Your task to perform on an android device: Open location settings Image 0: 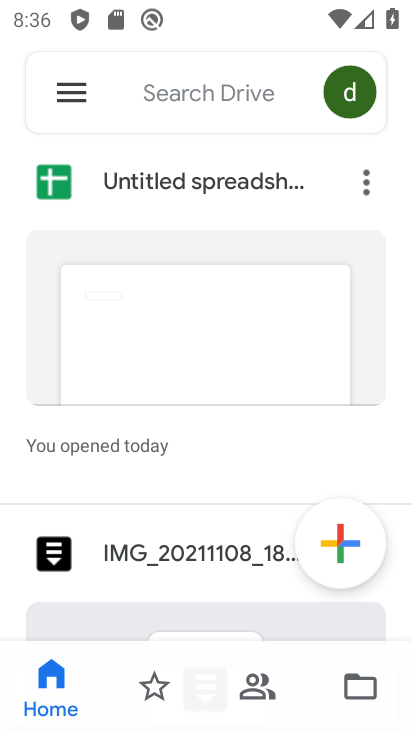
Step 0: press home button
Your task to perform on an android device: Open location settings Image 1: 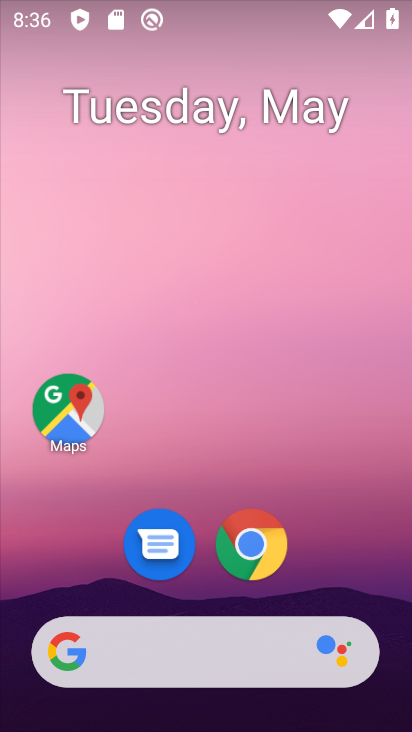
Step 1: drag from (370, 558) to (341, 246)
Your task to perform on an android device: Open location settings Image 2: 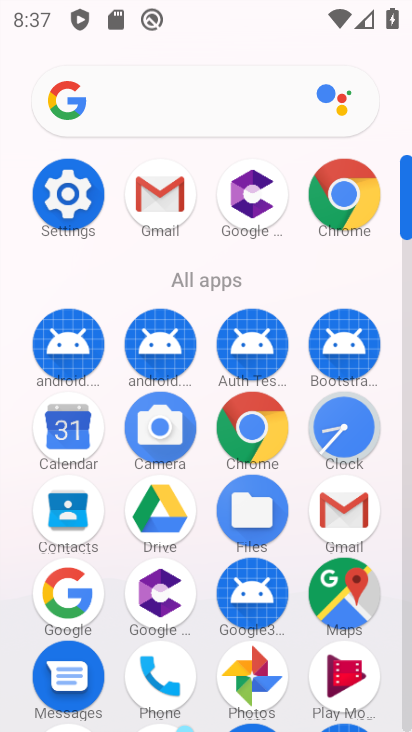
Step 2: click (59, 213)
Your task to perform on an android device: Open location settings Image 3: 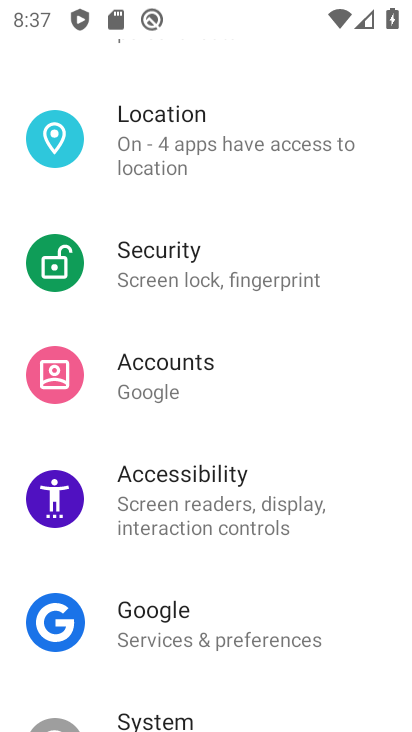
Step 3: drag from (205, 617) to (213, 328)
Your task to perform on an android device: Open location settings Image 4: 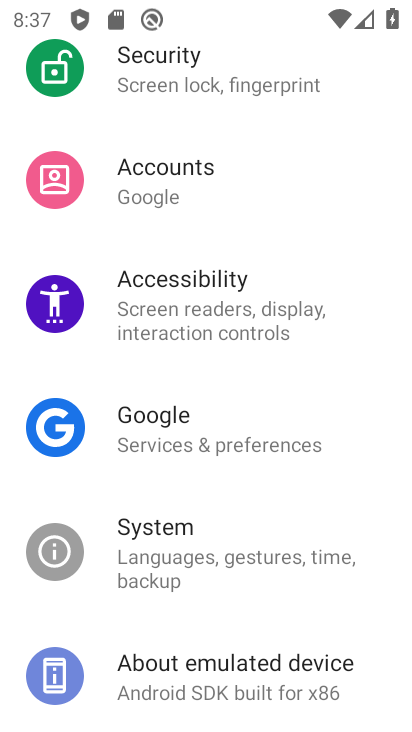
Step 4: drag from (211, 272) to (198, 562)
Your task to perform on an android device: Open location settings Image 5: 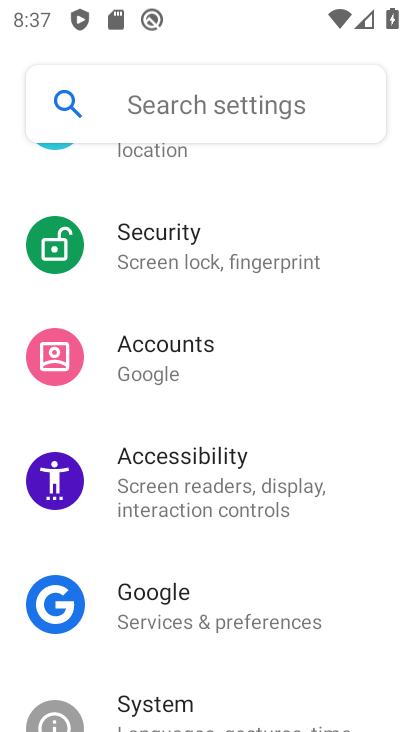
Step 5: drag from (206, 261) to (207, 578)
Your task to perform on an android device: Open location settings Image 6: 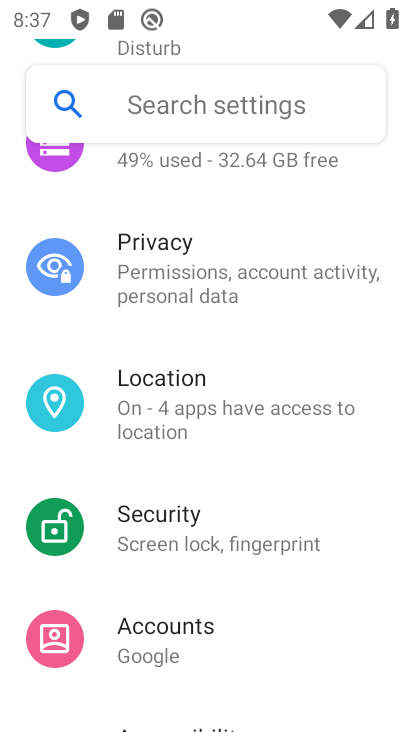
Step 6: click (208, 384)
Your task to perform on an android device: Open location settings Image 7: 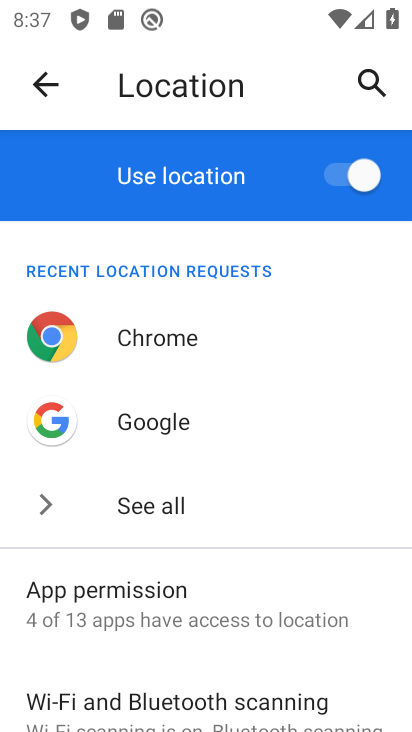
Step 7: task complete